Your task to perform on an android device: turn on the 12-hour format for clock Image 0: 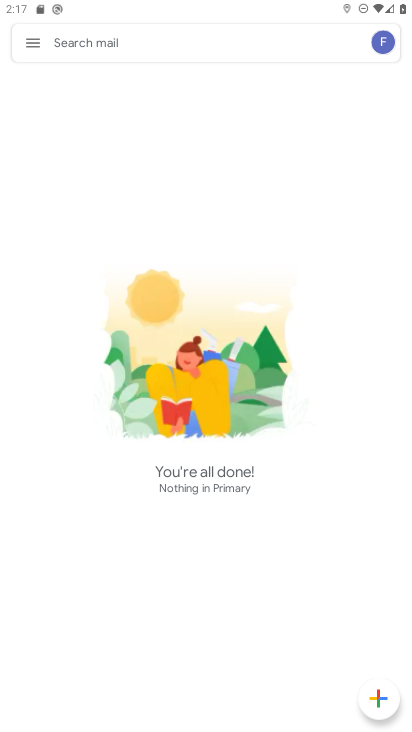
Step 0: press home button
Your task to perform on an android device: turn on the 12-hour format for clock Image 1: 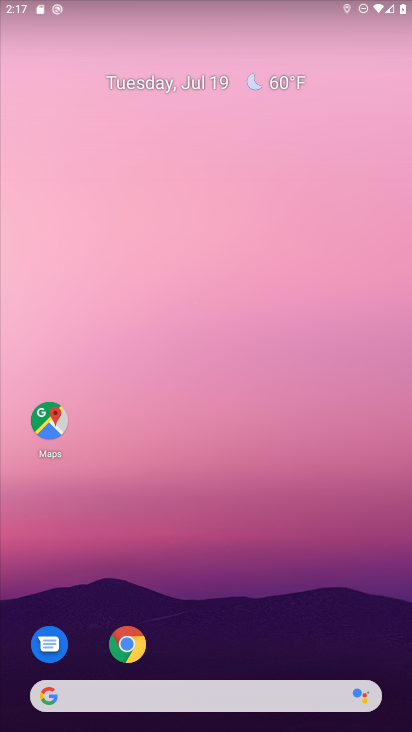
Step 1: drag from (219, 662) to (213, 123)
Your task to perform on an android device: turn on the 12-hour format for clock Image 2: 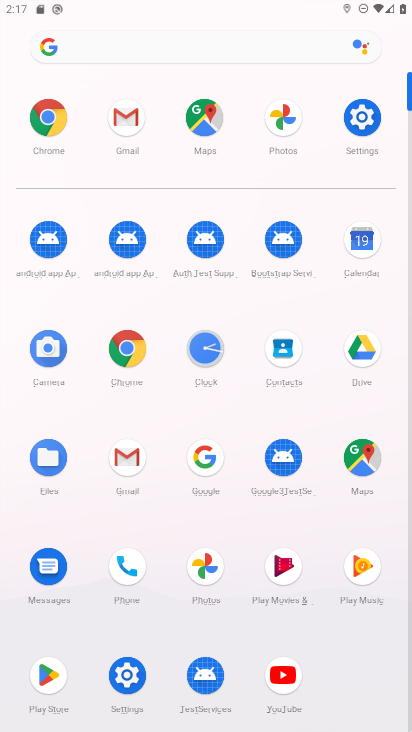
Step 2: click (204, 350)
Your task to perform on an android device: turn on the 12-hour format for clock Image 3: 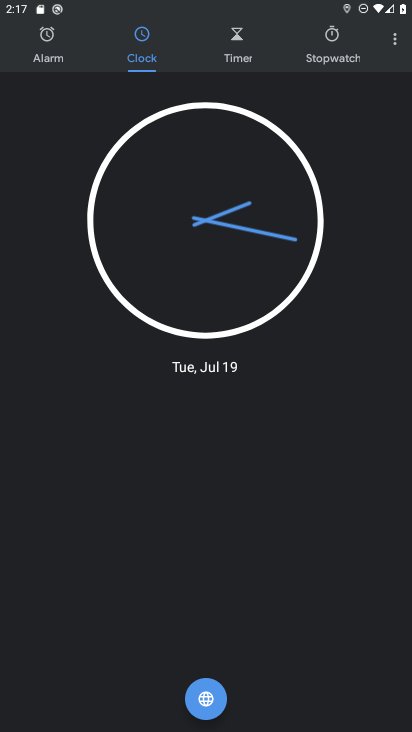
Step 3: click (387, 46)
Your task to perform on an android device: turn on the 12-hour format for clock Image 4: 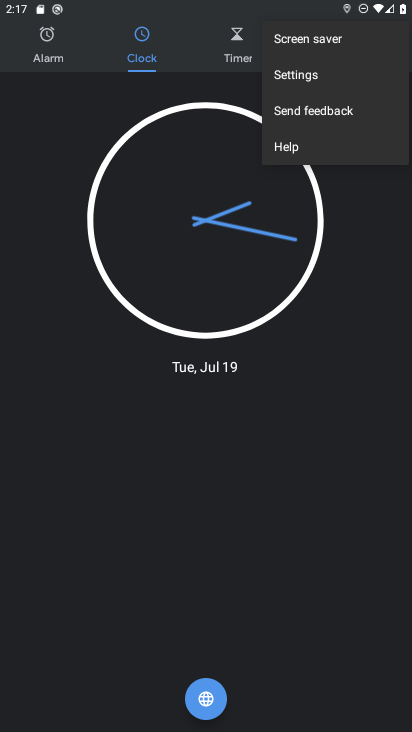
Step 4: click (301, 72)
Your task to perform on an android device: turn on the 12-hour format for clock Image 5: 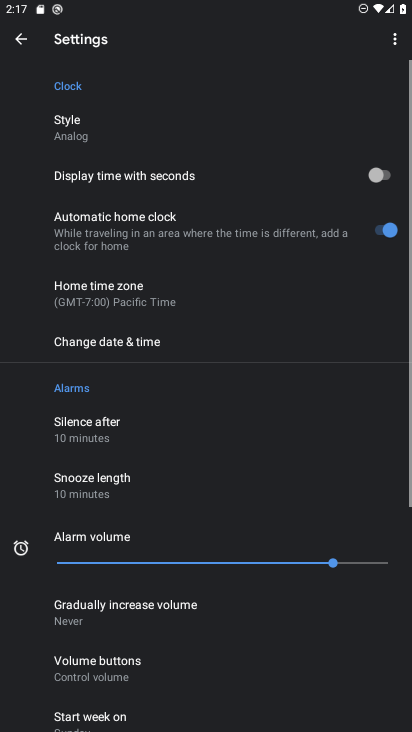
Step 5: drag from (267, 603) to (247, 471)
Your task to perform on an android device: turn on the 12-hour format for clock Image 6: 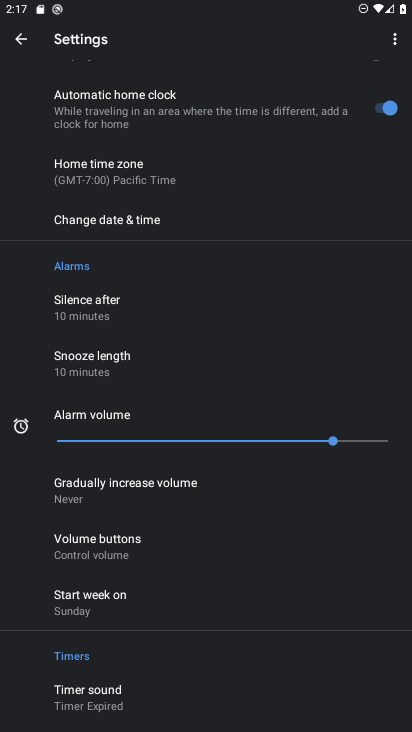
Step 6: click (75, 223)
Your task to perform on an android device: turn on the 12-hour format for clock Image 7: 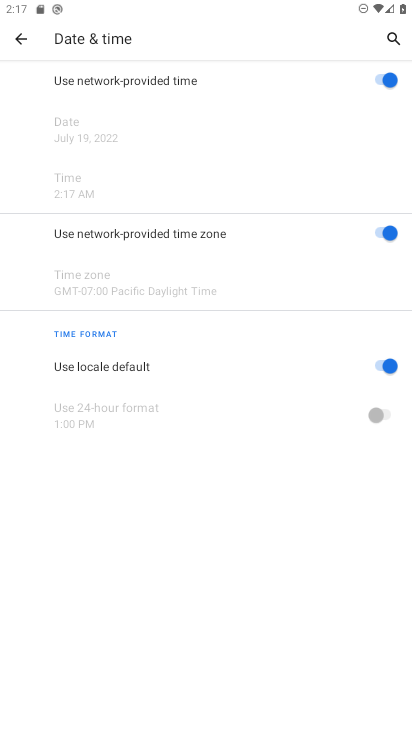
Step 7: task complete